Your task to perform on an android device: turn on notifications settings in the gmail app Image 0: 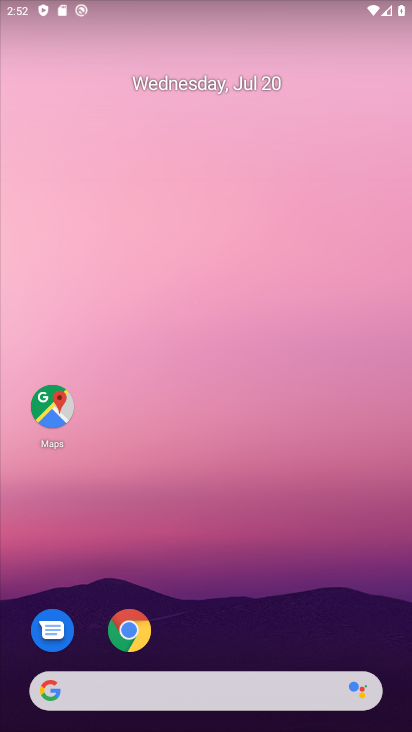
Step 0: drag from (220, 687) to (229, 245)
Your task to perform on an android device: turn on notifications settings in the gmail app Image 1: 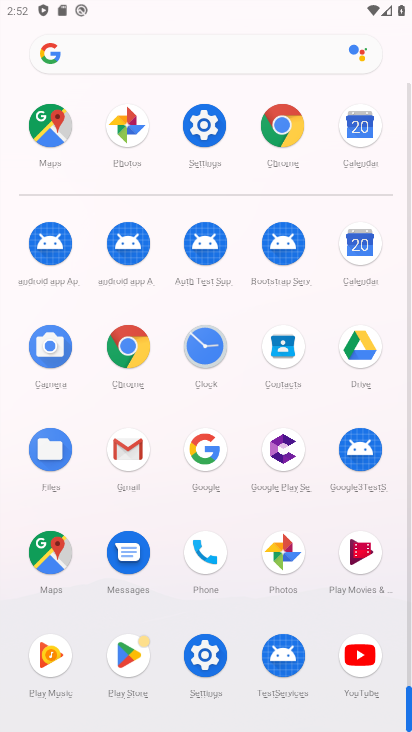
Step 1: click (125, 442)
Your task to perform on an android device: turn on notifications settings in the gmail app Image 2: 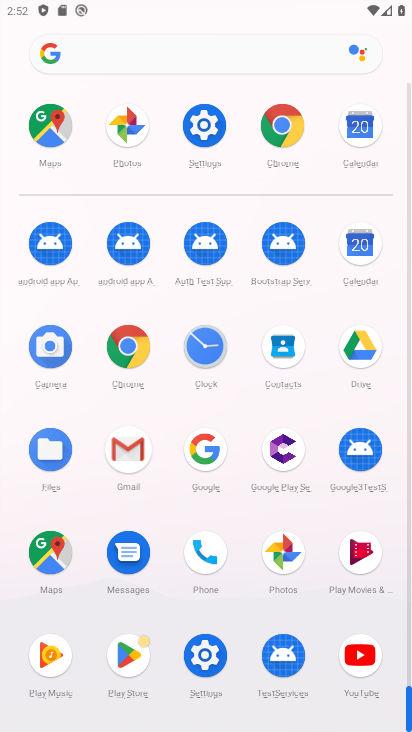
Step 2: click (128, 445)
Your task to perform on an android device: turn on notifications settings in the gmail app Image 3: 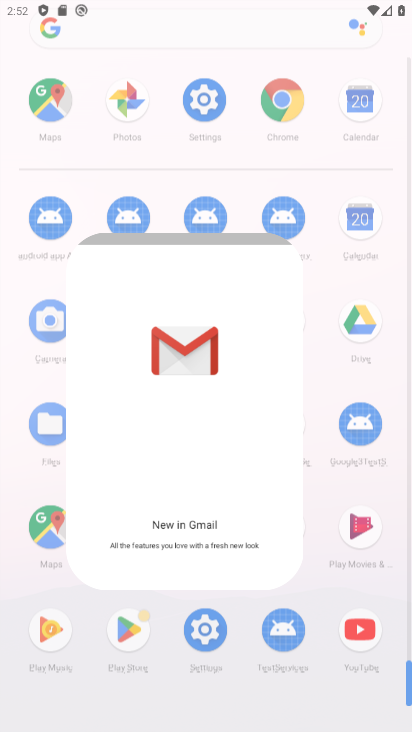
Step 3: click (128, 445)
Your task to perform on an android device: turn on notifications settings in the gmail app Image 4: 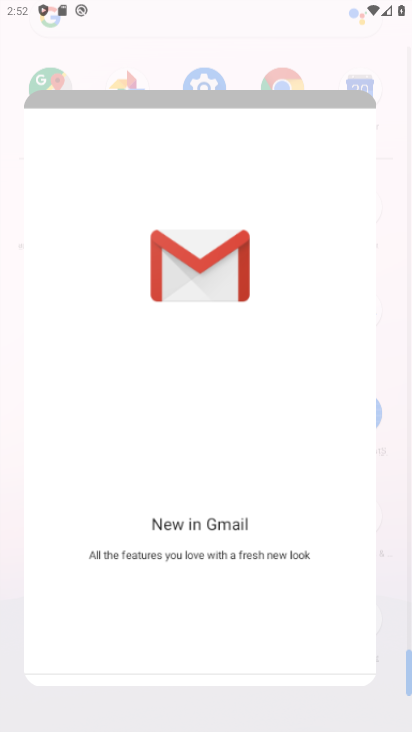
Step 4: click (129, 445)
Your task to perform on an android device: turn on notifications settings in the gmail app Image 5: 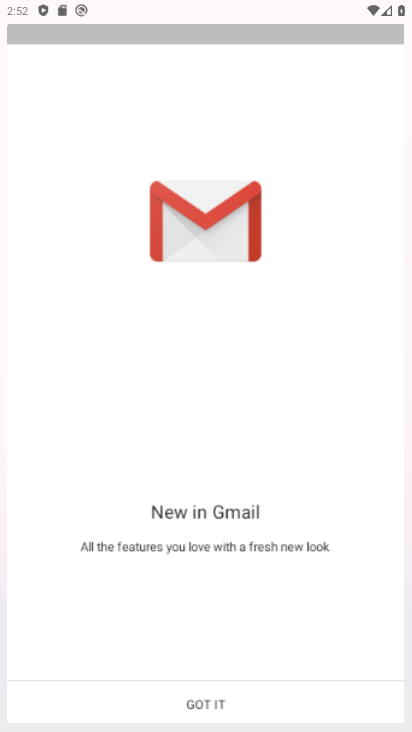
Step 5: click (129, 445)
Your task to perform on an android device: turn on notifications settings in the gmail app Image 6: 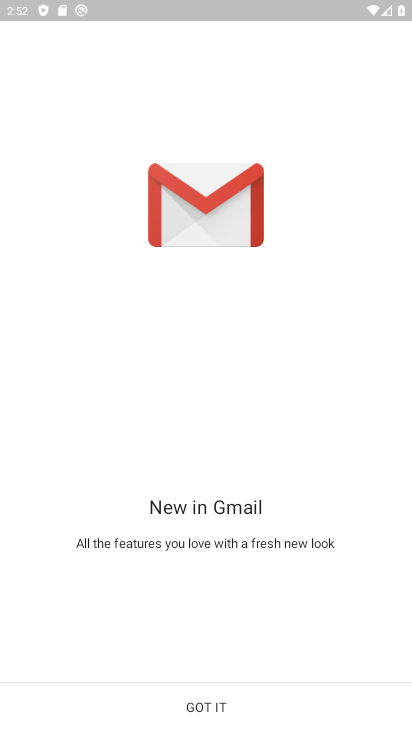
Step 6: click (219, 692)
Your task to perform on an android device: turn on notifications settings in the gmail app Image 7: 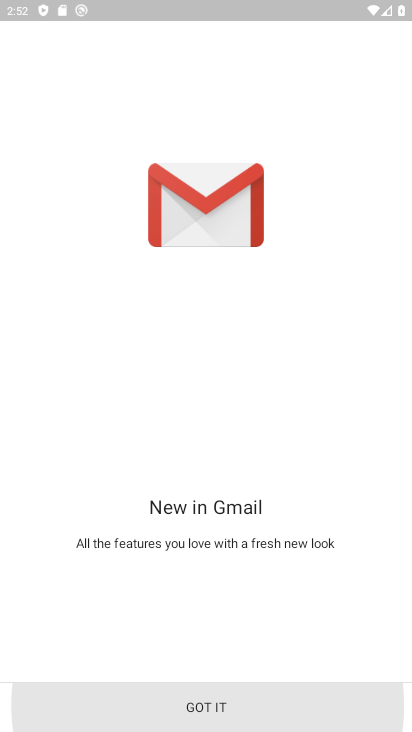
Step 7: click (214, 701)
Your task to perform on an android device: turn on notifications settings in the gmail app Image 8: 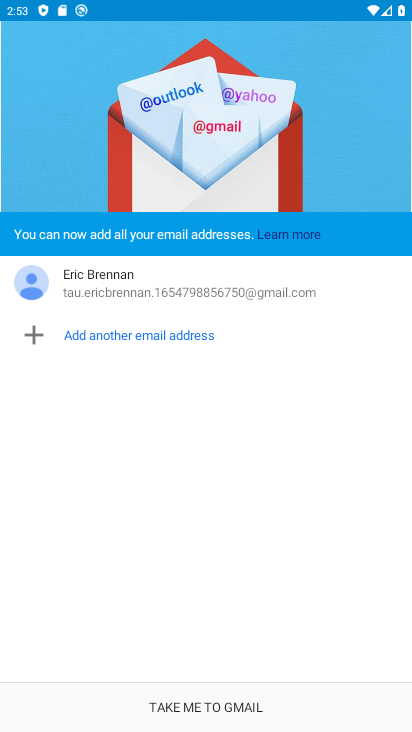
Step 8: click (241, 712)
Your task to perform on an android device: turn on notifications settings in the gmail app Image 9: 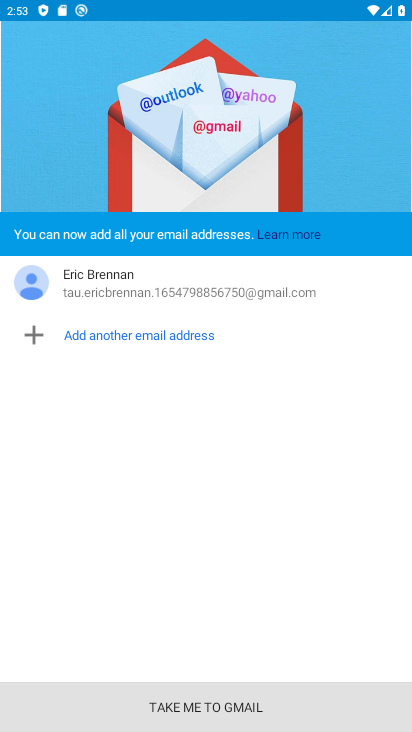
Step 9: click (241, 712)
Your task to perform on an android device: turn on notifications settings in the gmail app Image 10: 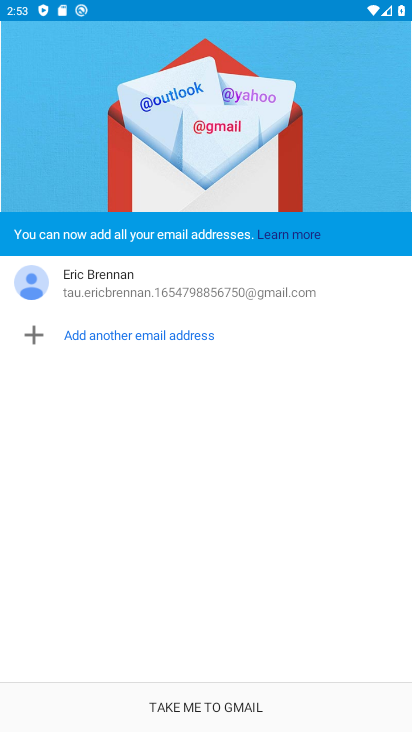
Step 10: click (242, 712)
Your task to perform on an android device: turn on notifications settings in the gmail app Image 11: 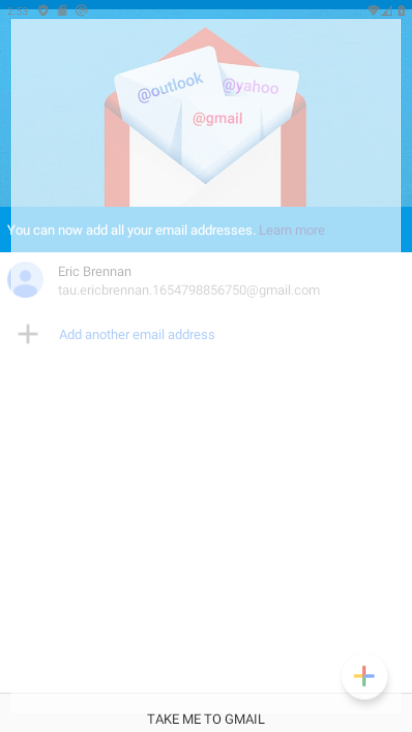
Step 11: click (246, 708)
Your task to perform on an android device: turn on notifications settings in the gmail app Image 12: 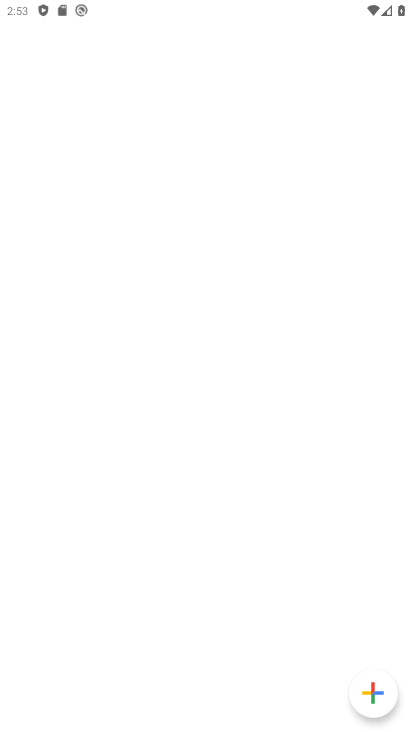
Step 12: click (248, 705)
Your task to perform on an android device: turn on notifications settings in the gmail app Image 13: 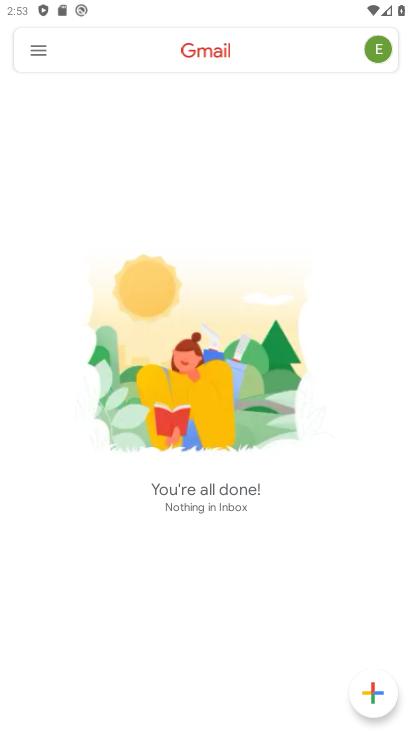
Step 13: click (35, 45)
Your task to perform on an android device: turn on notifications settings in the gmail app Image 14: 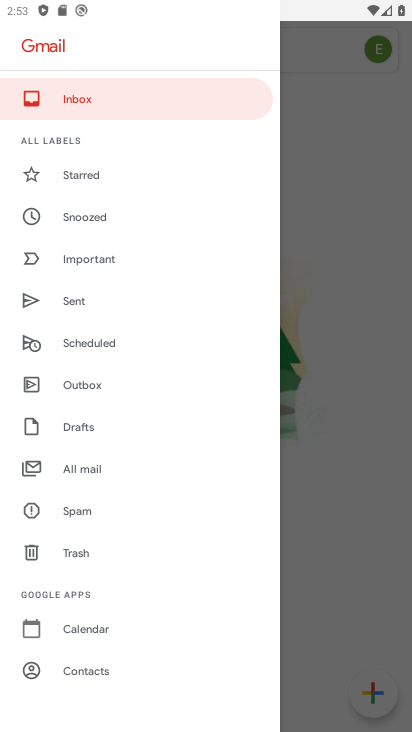
Step 14: drag from (75, 642) to (90, 185)
Your task to perform on an android device: turn on notifications settings in the gmail app Image 15: 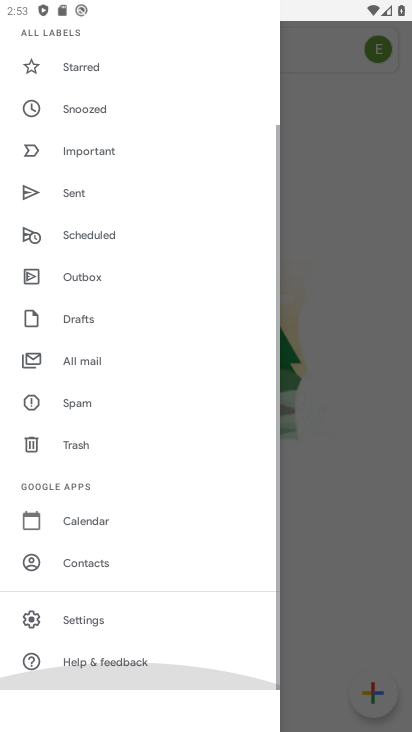
Step 15: drag from (98, 564) to (65, 193)
Your task to perform on an android device: turn on notifications settings in the gmail app Image 16: 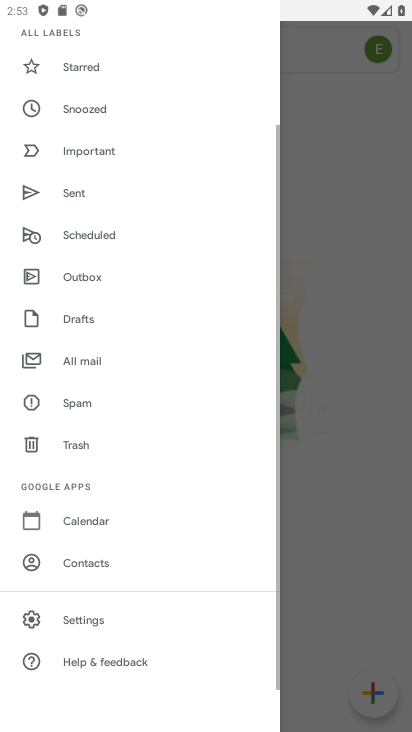
Step 16: click (71, 620)
Your task to perform on an android device: turn on notifications settings in the gmail app Image 17: 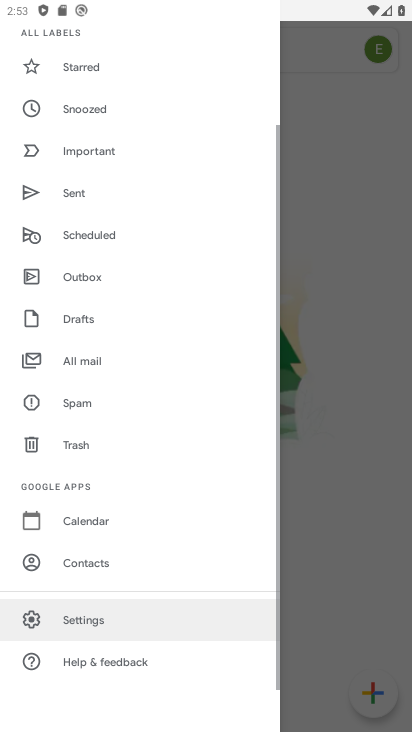
Step 17: click (71, 620)
Your task to perform on an android device: turn on notifications settings in the gmail app Image 18: 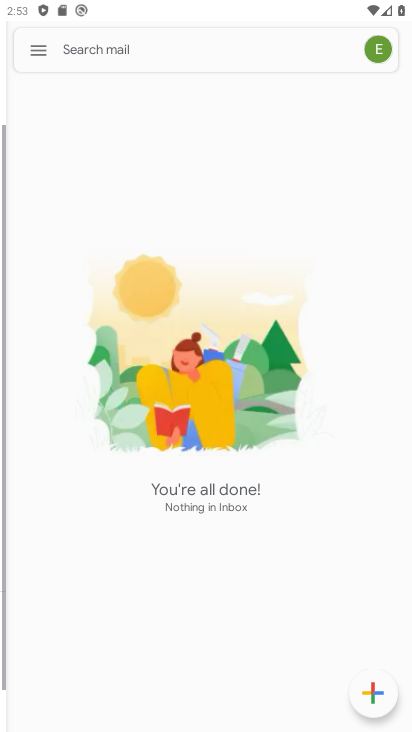
Step 18: click (71, 620)
Your task to perform on an android device: turn on notifications settings in the gmail app Image 19: 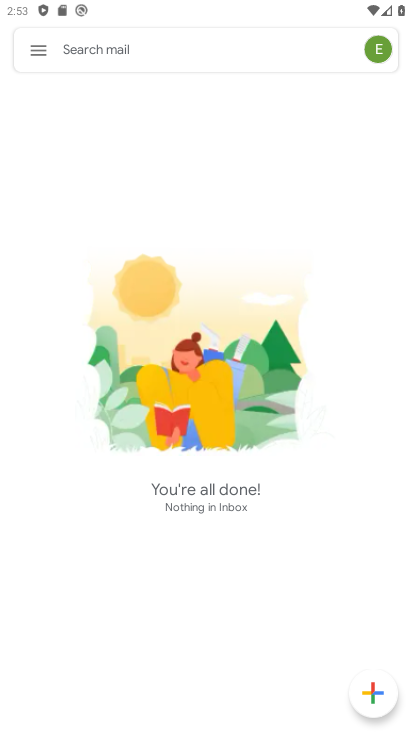
Step 19: click (71, 620)
Your task to perform on an android device: turn on notifications settings in the gmail app Image 20: 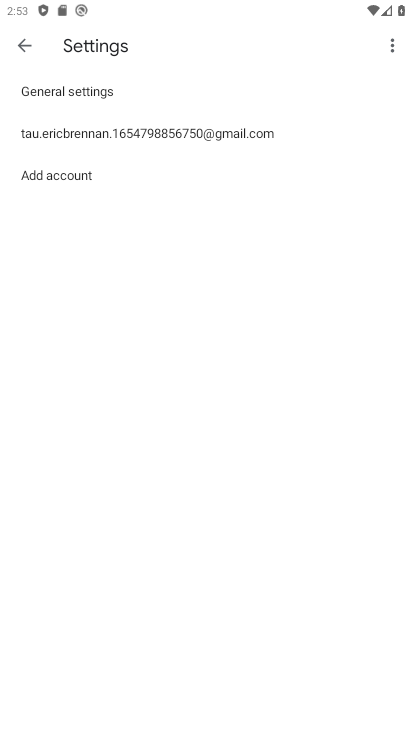
Step 20: click (69, 135)
Your task to perform on an android device: turn on notifications settings in the gmail app Image 21: 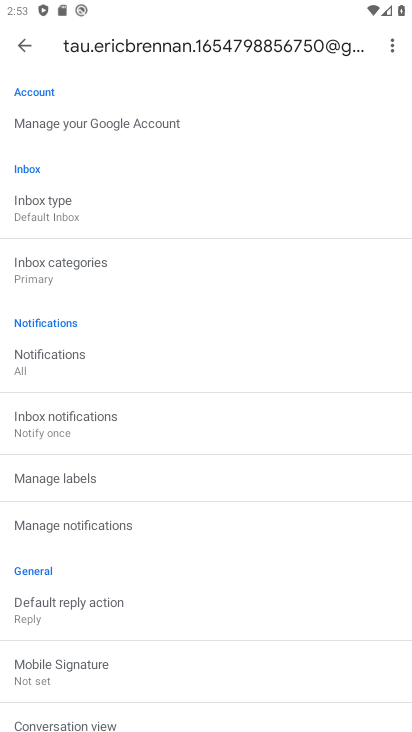
Step 21: click (41, 346)
Your task to perform on an android device: turn on notifications settings in the gmail app Image 22: 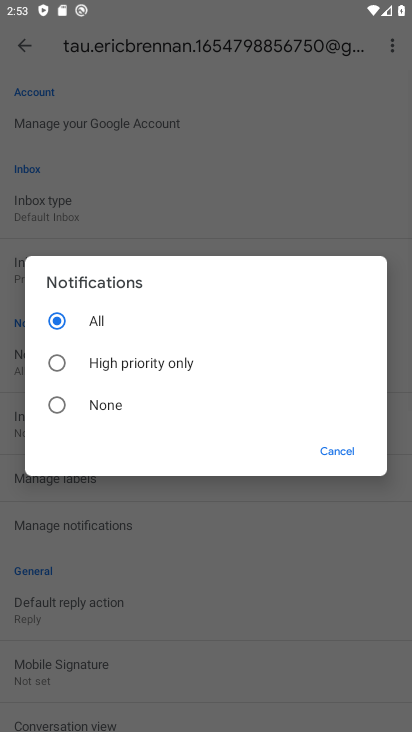
Step 22: click (57, 354)
Your task to perform on an android device: turn on notifications settings in the gmail app Image 23: 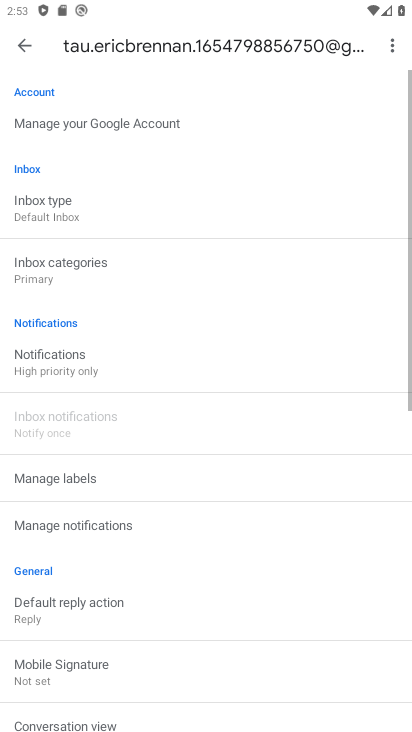
Step 23: click (60, 352)
Your task to perform on an android device: turn on notifications settings in the gmail app Image 24: 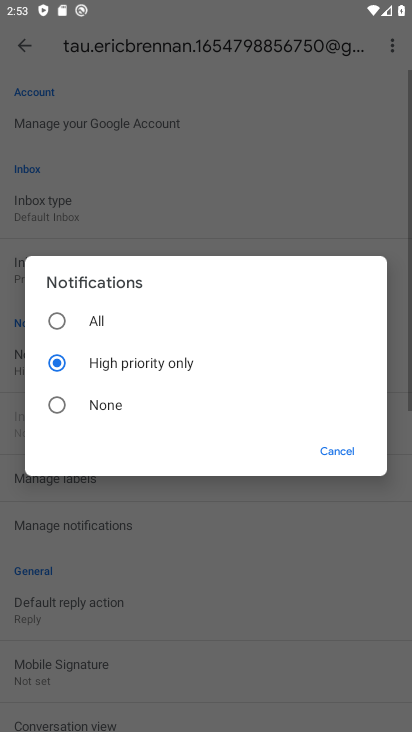
Step 24: click (50, 306)
Your task to perform on an android device: turn on notifications settings in the gmail app Image 25: 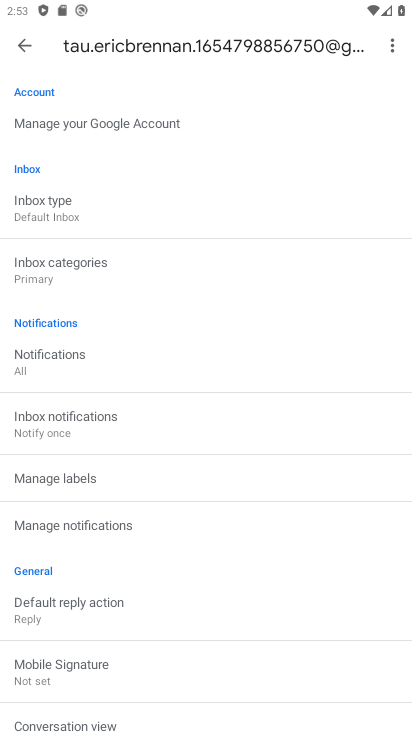
Step 25: task complete